Your task to perform on an android device: Open Wikipedia Image 0: 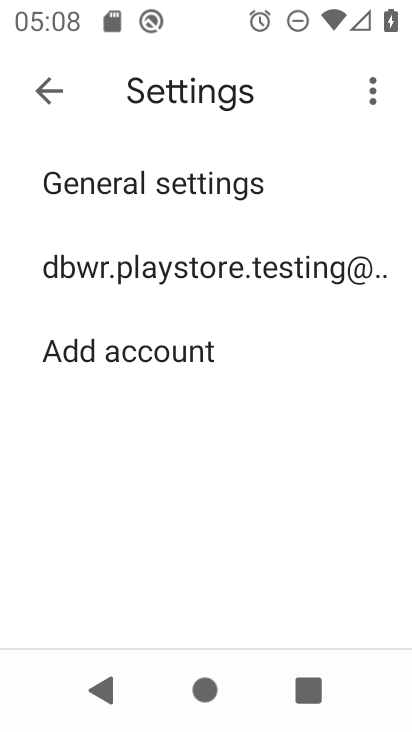
Step 0: press home button
Your task to perform on an android device: Open Wikipedia Image 1: 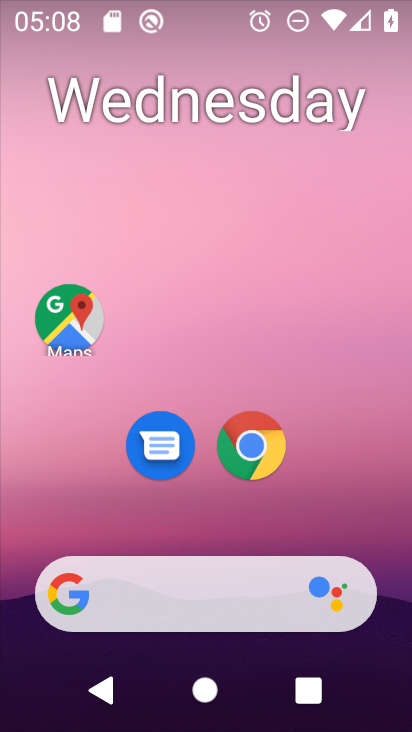
Step 1: click (251, 450)
Your task to perform on an android device: Open Wikipedia Image 2: 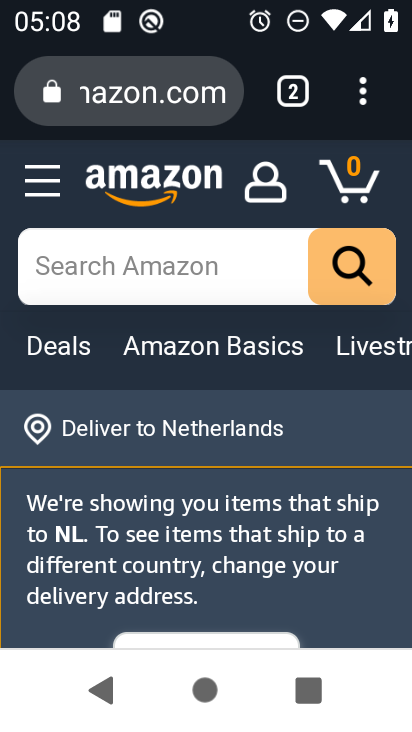
Step 2: click (291, 78)
Your task to perform on an android device: Open Wikipedia Image 3: 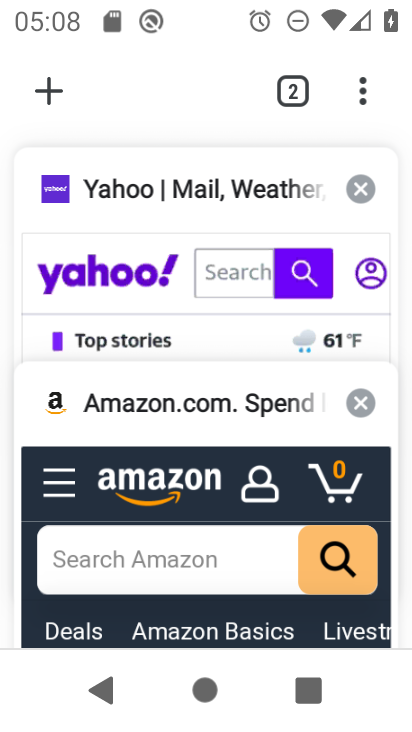
Step 3: click (68, 83)
Your task to perform on an android device: Open Wikipedia Image 4: 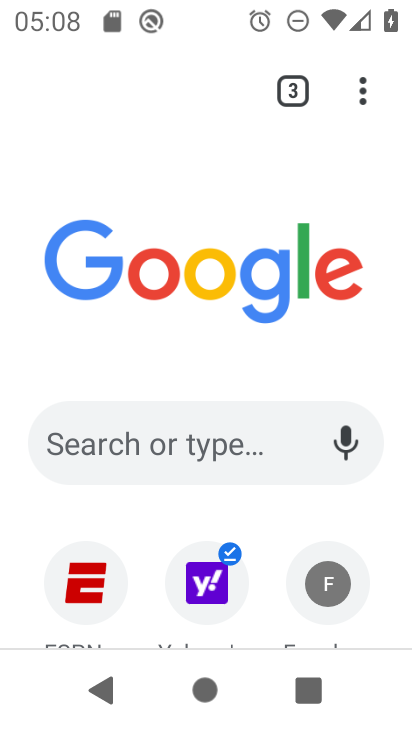
Step 4: drag from (167, 512) to (238, 112)
Your task to perform on an android device: Open Wikipedia Image 5: 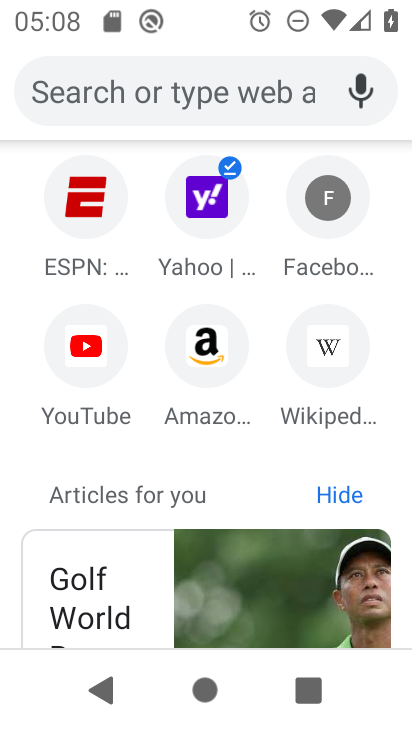
Step 5: click (309, 371)
Your task to perform on an android device: Open Wikipedia Image 6: 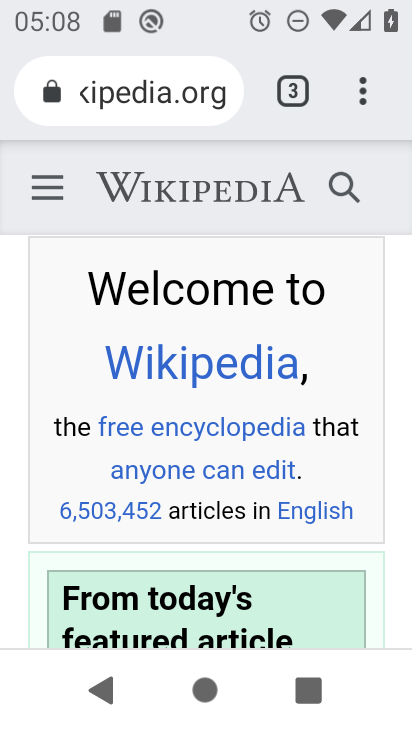
Step 6: task complete